Your task to perform on an android device: toggle show notifications on the lock screen Image 0: 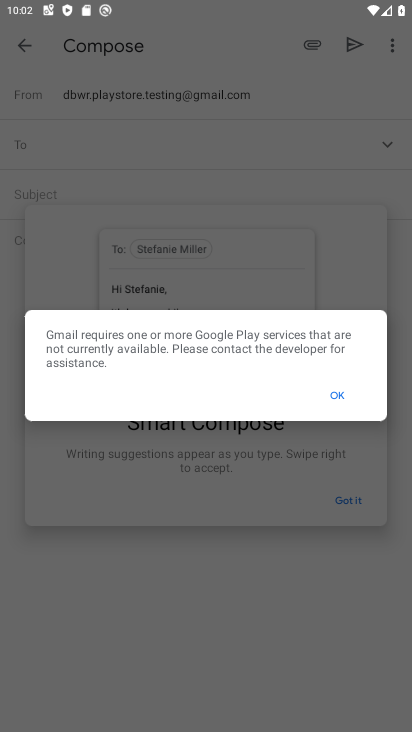
Step 0: press home button
Your task to perform on an android device: toggle show notifications on the lock screen Image 1: 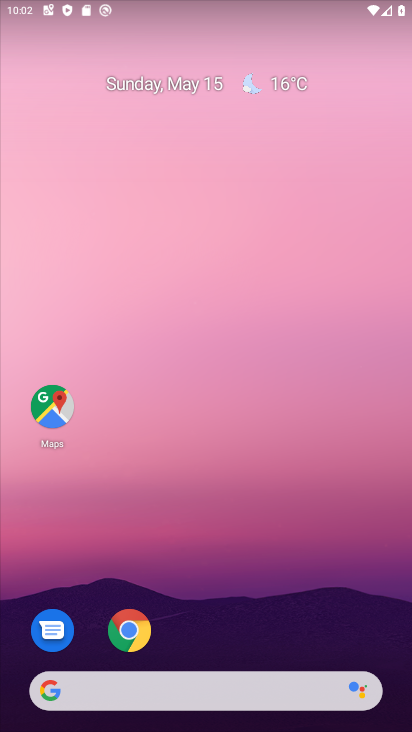
Step 1: drag from (230, 631) to (231, 185)
Your task to perform on an android device: toggle show notifications on the lock screen Image 2: 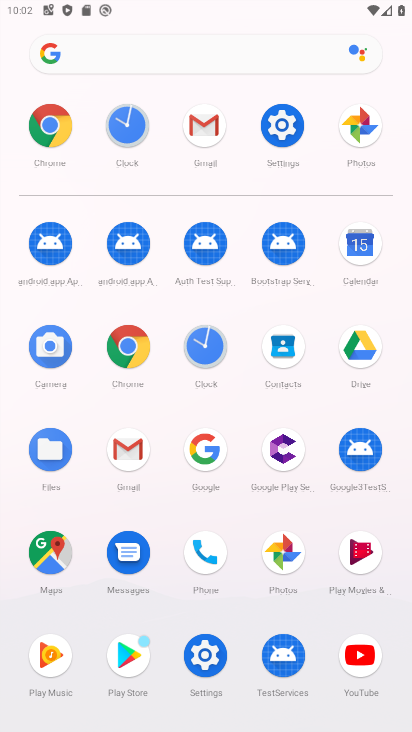
Step 2: click (288, 133)
Your task to perform on an android device: toggle show notifications on the lock screen Image 3: 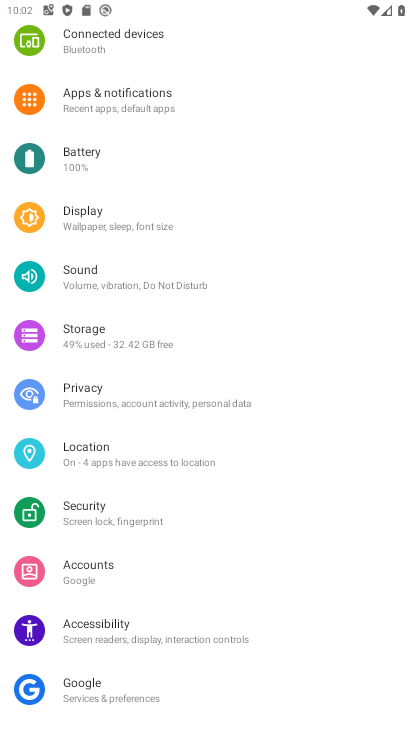
Step 3: click (144, 108)
Your task to perform on an android device: toggle show notifications on the lock screen Image 4: 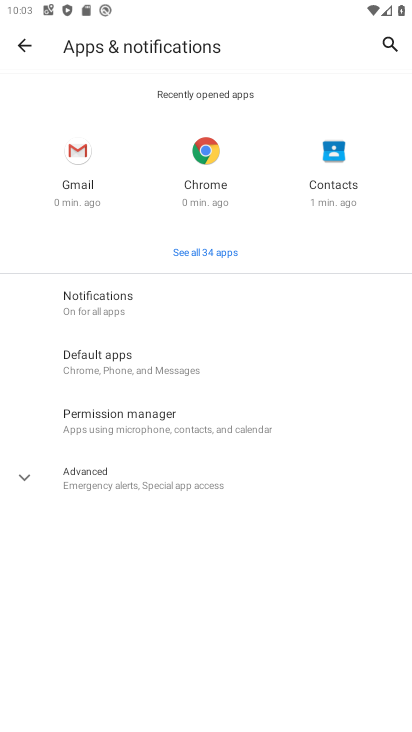
Step 4: click (128, 302)
Your task to perform on an android device: toggle show notifications on the lock screen Image 5: 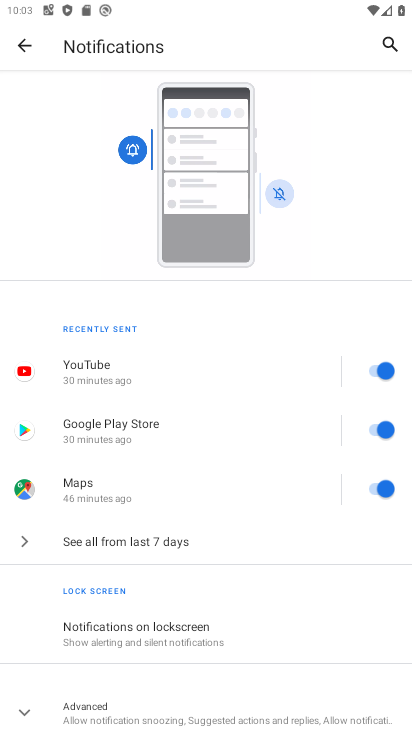
Step 5: click (172, 629)
Your task to perform on an android device: toggle show notifications on the lock screen Image 6: 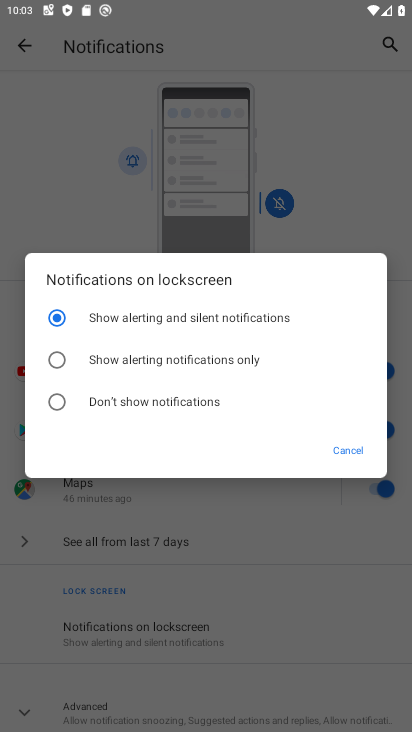
Step 6: click (161, 397)
Your task to perform on an android device: toggle show notifications on the lock screen Image 7: 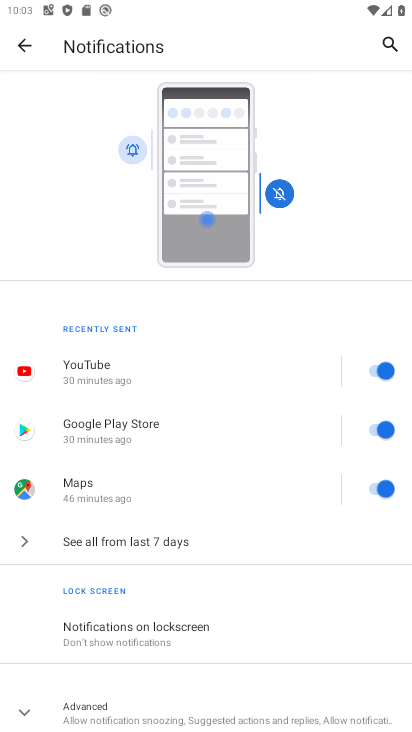
Step 7: task complete